Your task to perform on an android device: change keyboard looks Image 0: 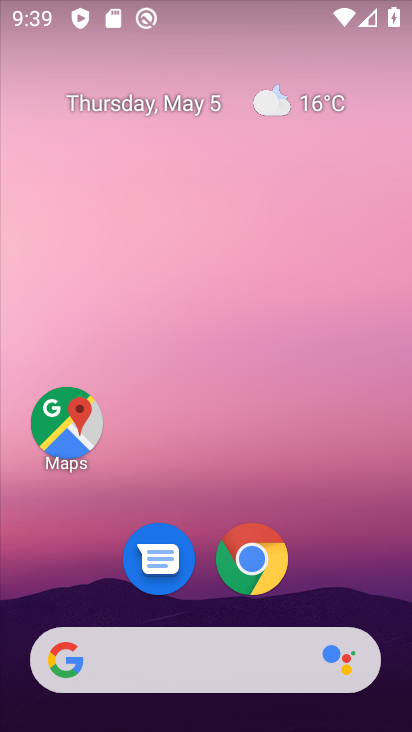
Step 0: drag from (201, 583) to (223, 128)
Your task to perform on an android device: change keyboard looks Image 1: 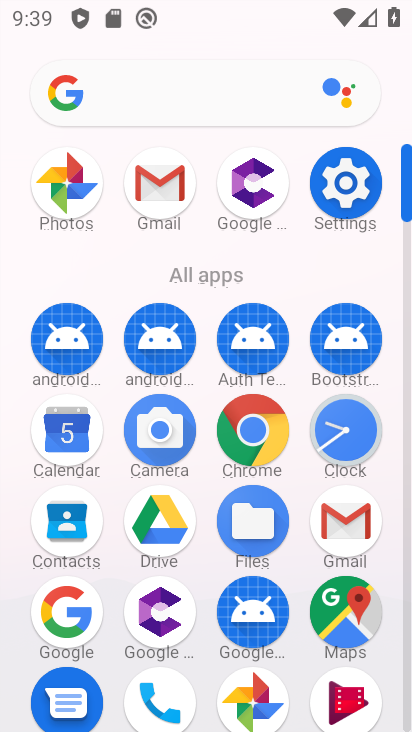
Step 1: click (350, 211)
Your task to perform on an android device: change keyboard looks Image 2: 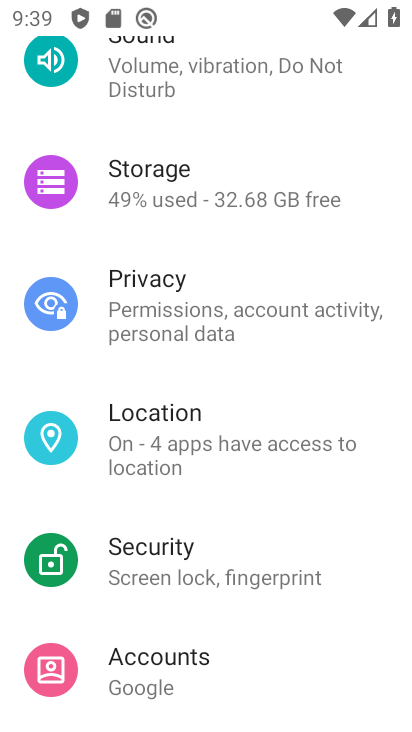
Step 2: drag from (201, 653) to (216, 304)
Your task to perform on an android device: change keyboard looks Image 3: 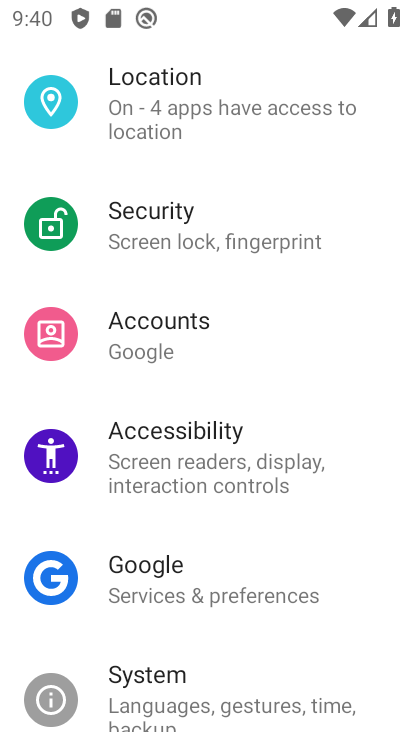
Step 3: drag from (193, 580) to (205, 281)
Your task to perform on an android device: change keyboard looks Image 4: 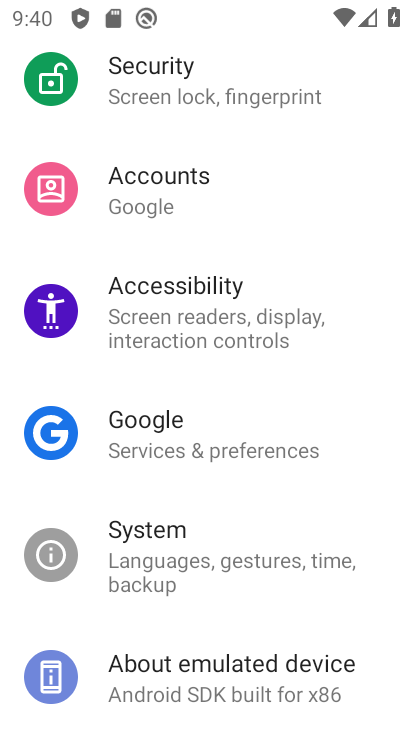
Step 4: click (185, 556)
Your task to perform on an android device: change keyboard looks Image 5: 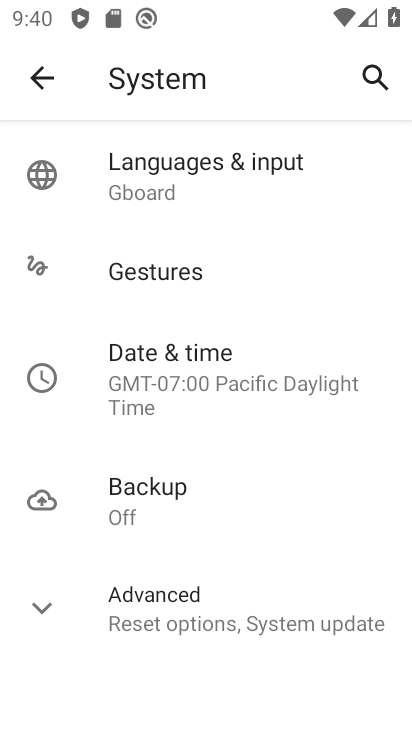
Step 5: click (191, 199)
Your task to perform on an android device: change keyboard looks Image 6: 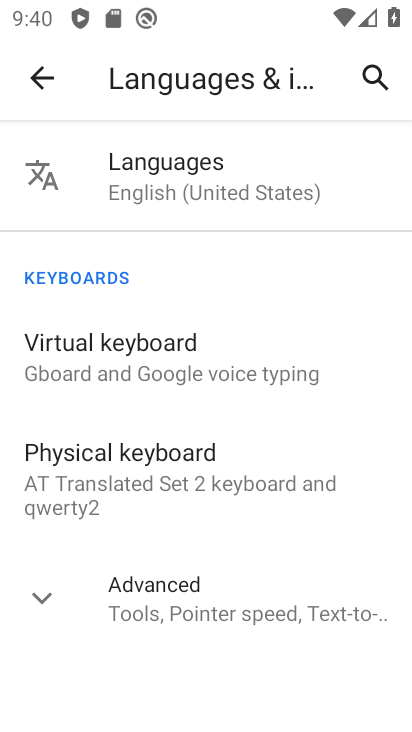
Step 6: click (159, 345)
Your task to perform on an android device: change keyboard looks Image 7: 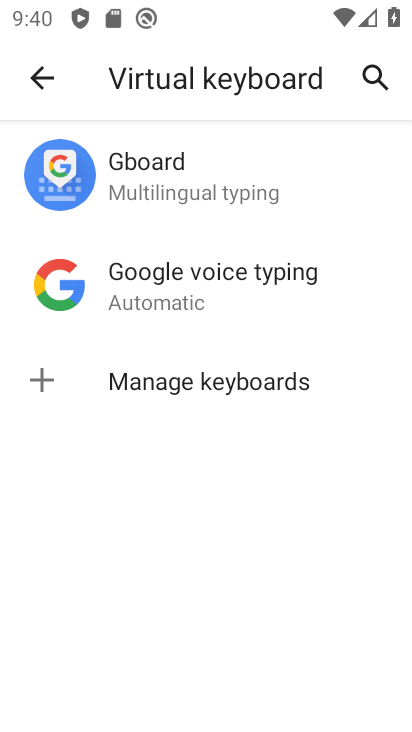
Step 7: click (177, 196)
Your task to perform on an android device: change keyboard looks Image 8: 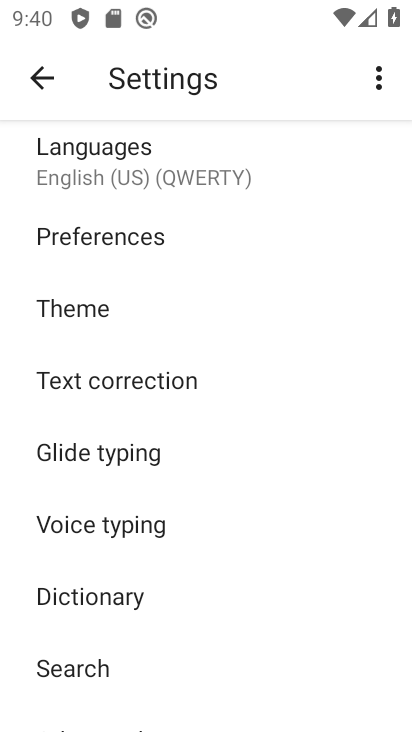
Step 8: click (114, 312)
Your task to perform on an android device: change keyboard looks Image 9: 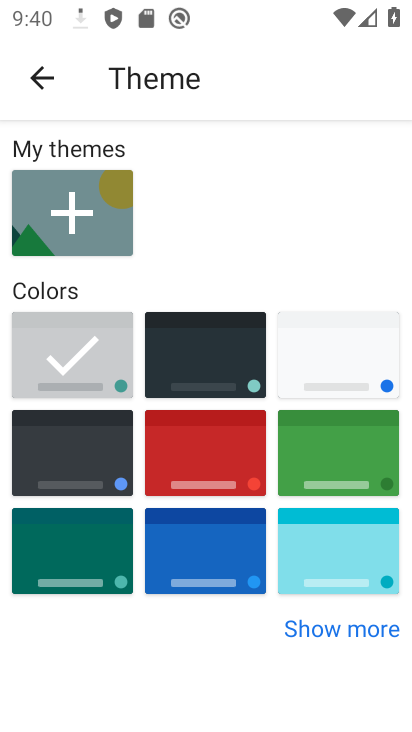
Step 9: click (336, 373)
Your task to perform on an android device: change keyboard looks Image 10: 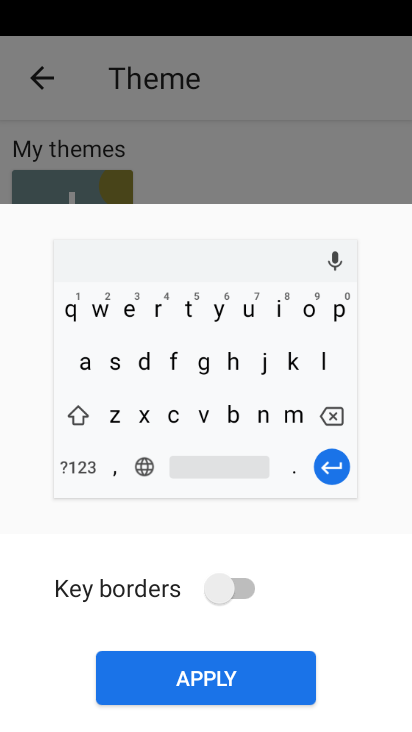
Step 10: click (215, 671)
Your task to perform on an android device: change keyboard looks Image 11: 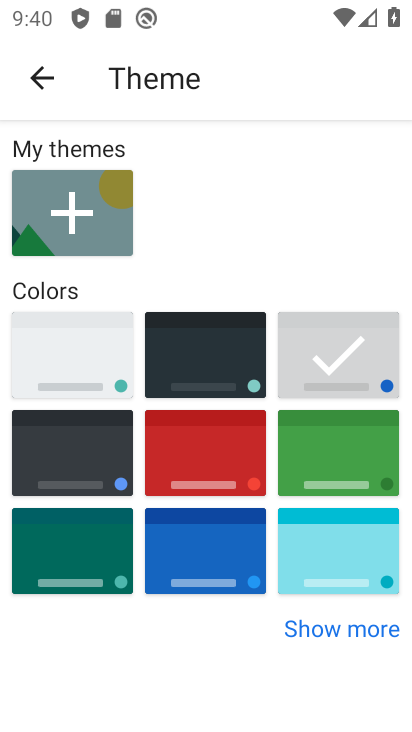
Step 11: task complete